Your task to perform on an android device: Go to ESPN.com Image 0: 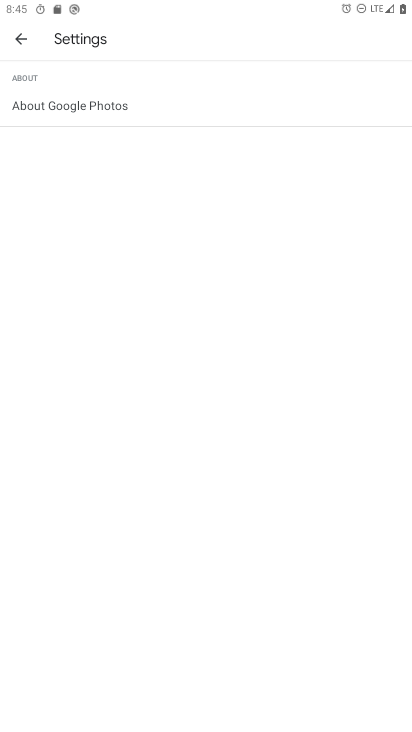
Step 0: press home button
Your task to perform on an android device: Go to ESPN.com Image 1: 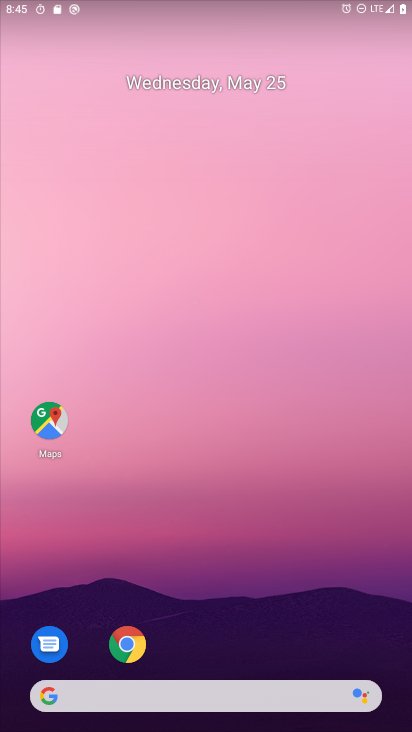
Step 1: drag from (333, 614) to (267, 22)
Your task to perform on an android device: Go to ESPN.com Image 2: 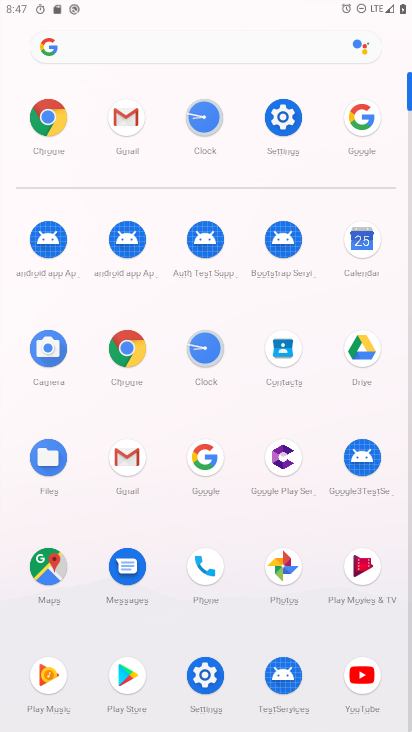
Step 2: click (187, 459)
Your task to perform on an android device: Go to ESPN.com Image 3: 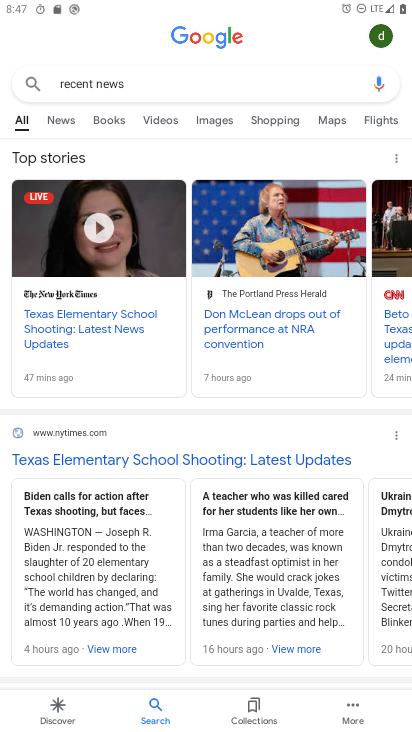
Step 3: press back button
Your task to perform on an android device: Go to ESPN.com Image 4: 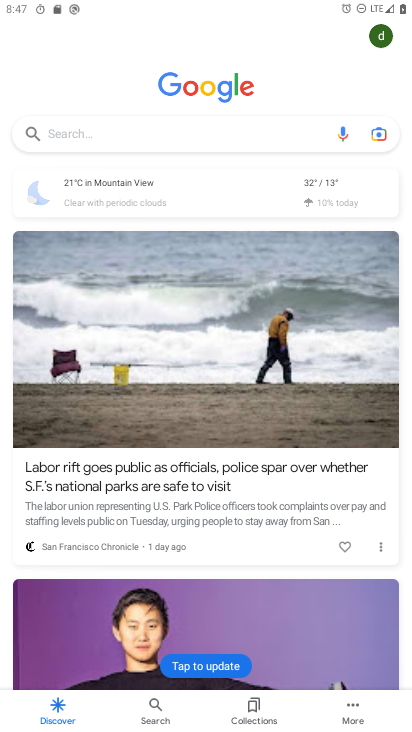
Step 4: click (124, 122)
Your task to perform on an android device: Go to ESPN.com Image 5: 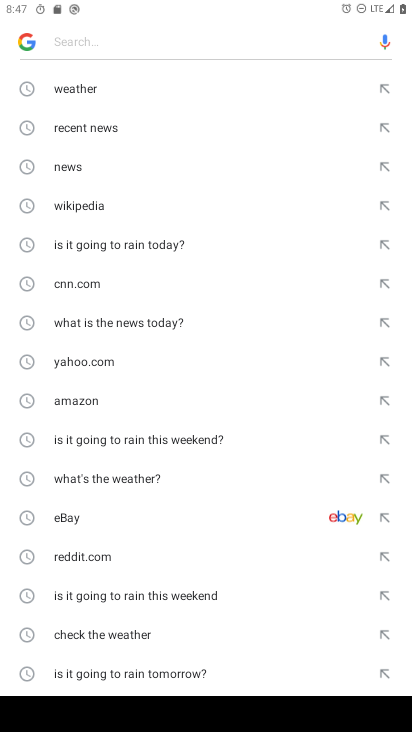
Step 5: drag from (99, 653) to (118, 274)
Your task to perform on an android device: Go to ESPN.com Image 6: 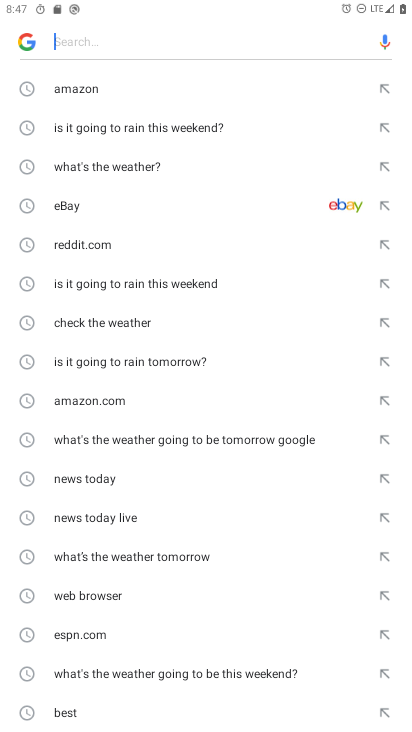
Step 6: click (78, 644)
Your task to perform on an android device: Go to ESPN.com Image 7: 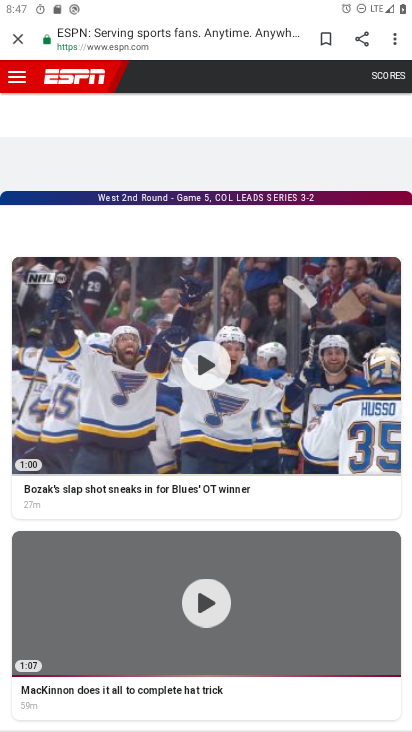
Step 7: task complete